Your task to perform on an android device: Open calendar and show me the first week of next month Image 0: 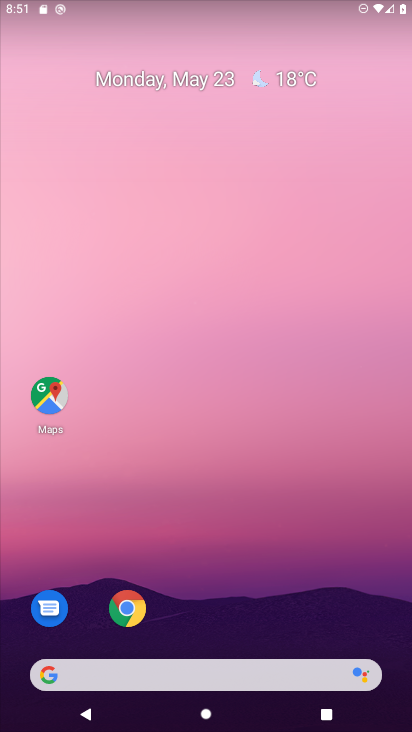
Step 0: drag from (218, 728) to (228, 120)
Your task to perform on an android device: Open calendar and show me the first week of next month Image 1: 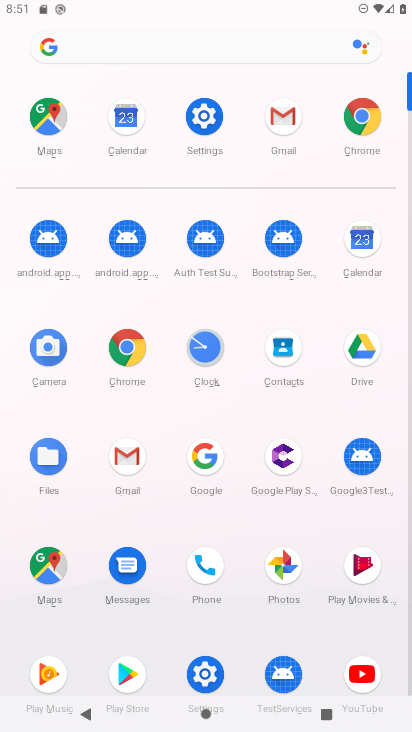
Step 1: click (363, 243)
Your task to perform on an android device: Open calendar and show me the first week of next month Image 2: 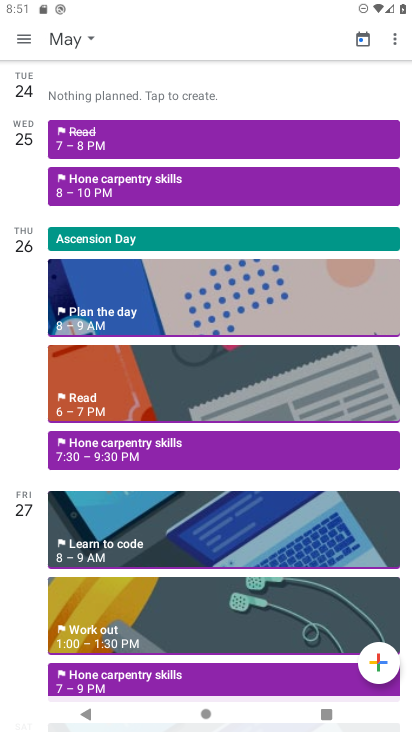
Step 2: click (91, 40)
Your task to perform on an android device: Open calendar and show me the first week of next month Image 3: 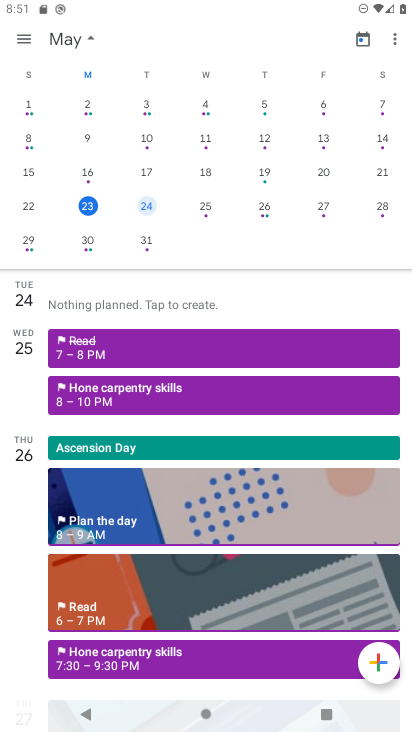
Step 3: drag from (341, 184) to (2, 174)
Your task to perform on an android device: Open calendar and show me the first week of next month Image 4: 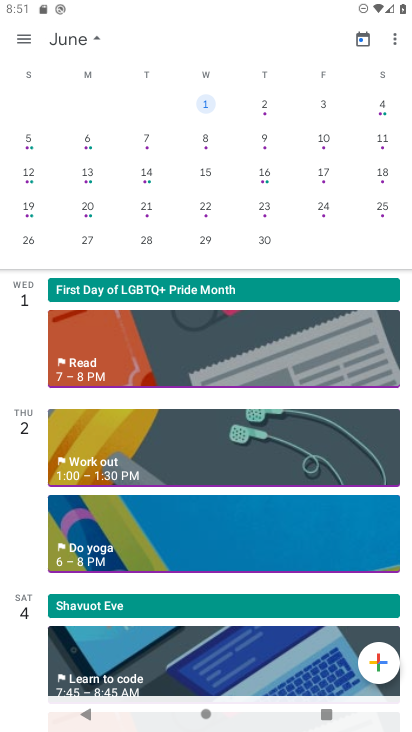
Step 4: click (92, 136)
Your task to perform on an android device: Open calendar and show me the first week of next month Image 5: 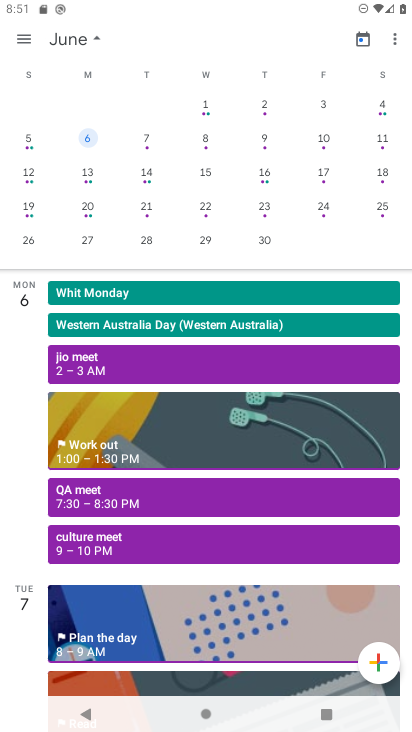
Step 5: click (24, 39)
Your task to perform on an android device: Open calendar and show me the first week of next month Image 6: 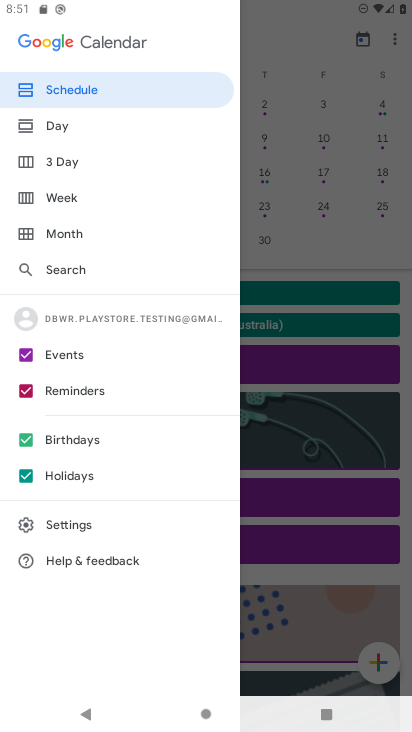
Step 6: click (67, 196)
Your task to perform on an android device: Open calendar and show me the first week of next month Image 7: 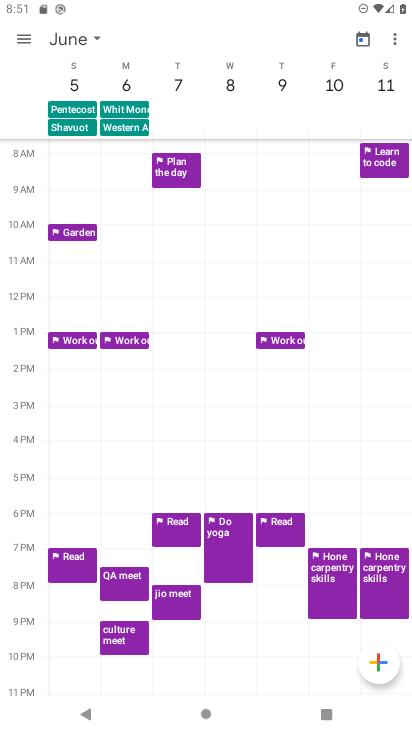
Step 7: task complete